Your task to perform on an android device: toggle notification dots Image 0: 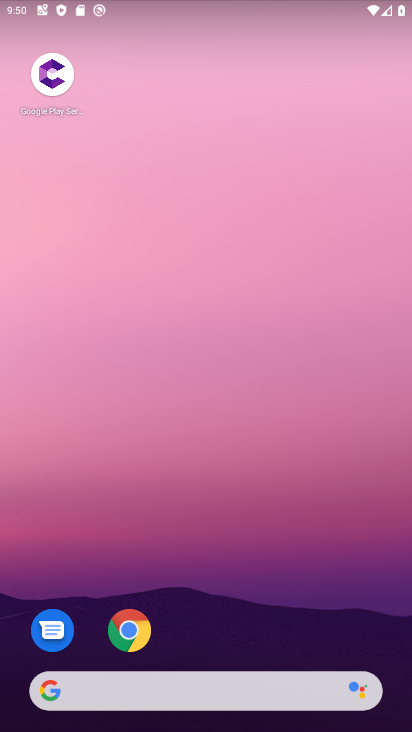
Step 0: drag from (198, 658) to (269, 236)
Your task to perform on an android device: toggle notification dots Image 1: 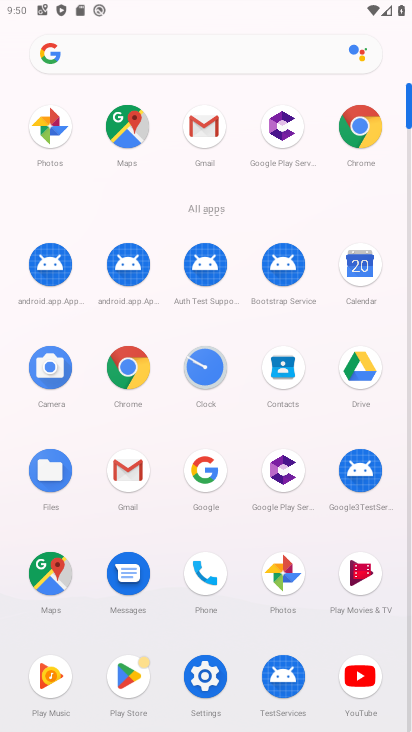
Step 1: click (201, 671)
Your task to perform on an android device: toggle notification dots Image 2: 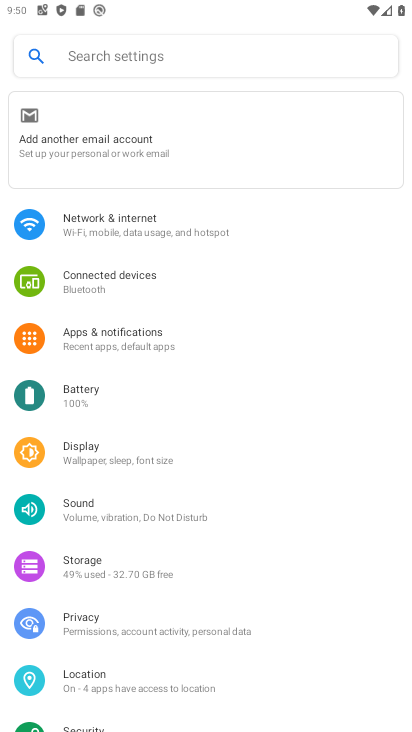
Step 2: click (105, 283)
Your task to perform on an android device: toggle notification dots Image 3: 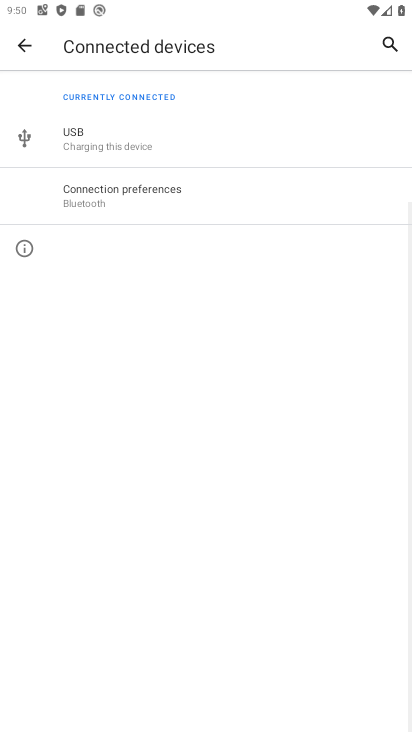
Step 3: click (23, 50)
Your task to perform on an android device: toggle notification dots Image 4: 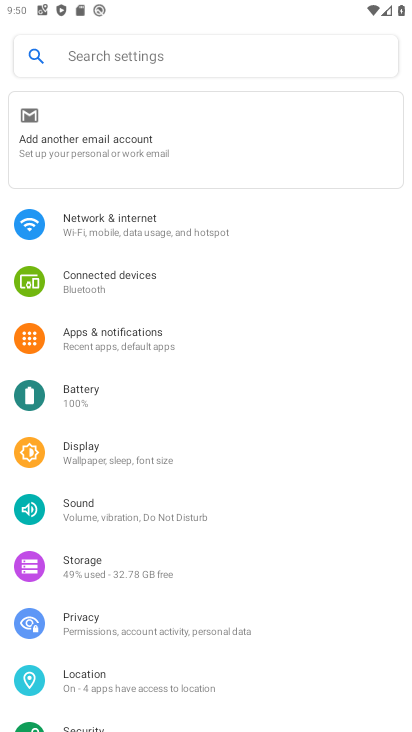
Step 4: click (118, 333)
Your task to perform on an android device: toggle notification dots Image 5: 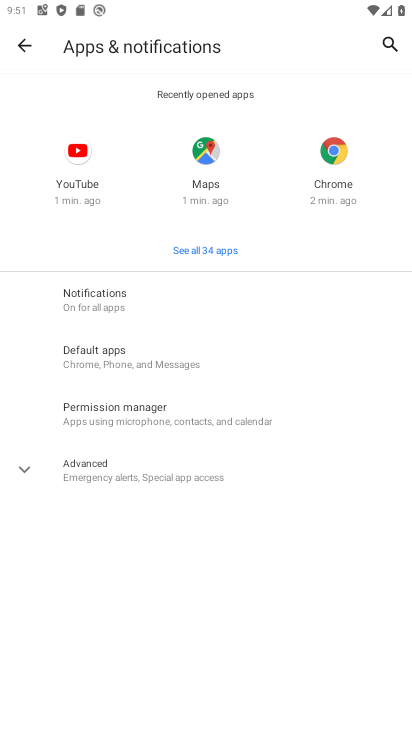
Step 5: click (104, 303)
Your task to perform on an android device: toggle notification dots Image 6: 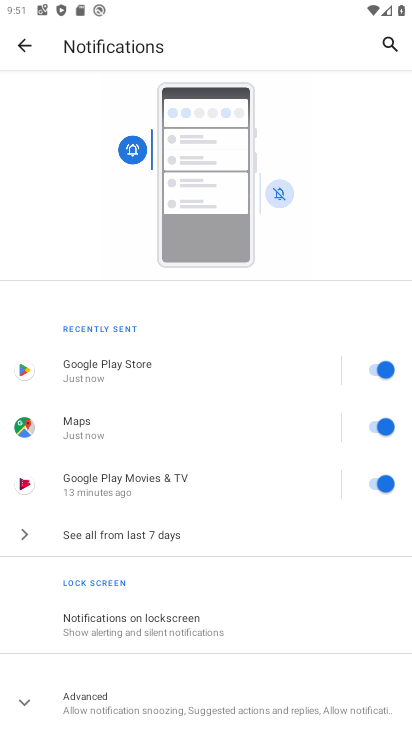
Step 6: click (142, 705)
Your task to perform on an android device: toggle notification dots Image 7: 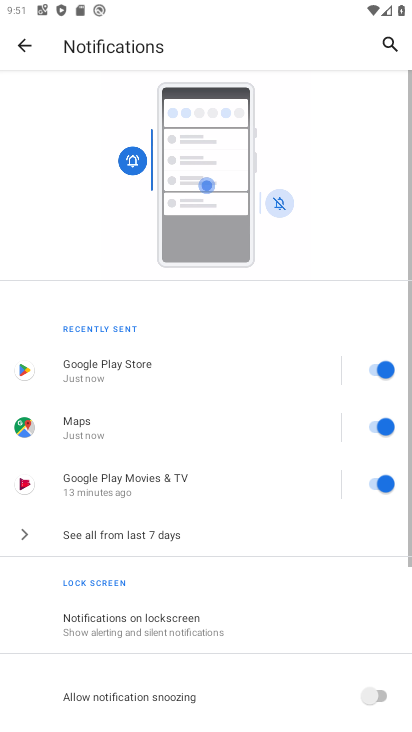
Step 7: drag from (256, 657) to (258, 303)
Your task to perform on an android device: toggle notification dots Image 8: 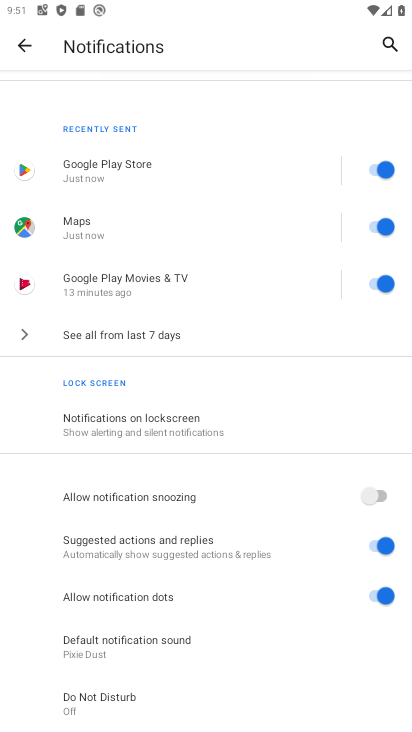
Step 8: click (380, 596)
Your task to perform on an android device: toggle notification dots Image 9: 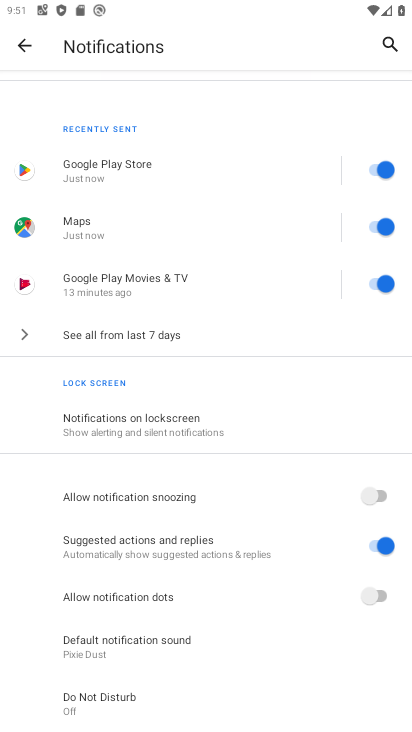
Step 9: task complete